Your task to perform on an android device: Open maps Image 0: 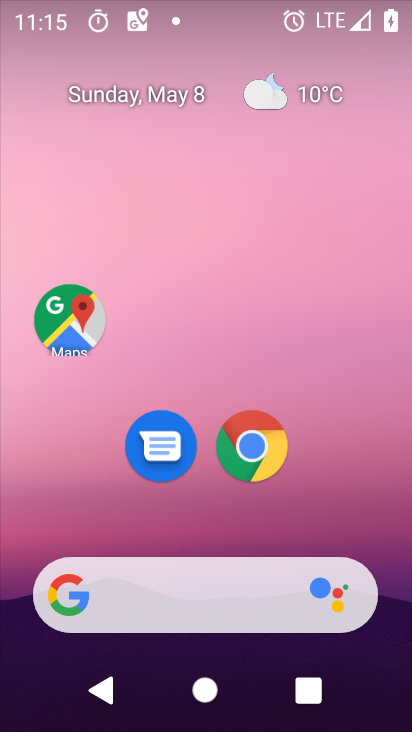
Step 0: click (68, 323)
Your task to perform on an android device: Open maps Image 1: 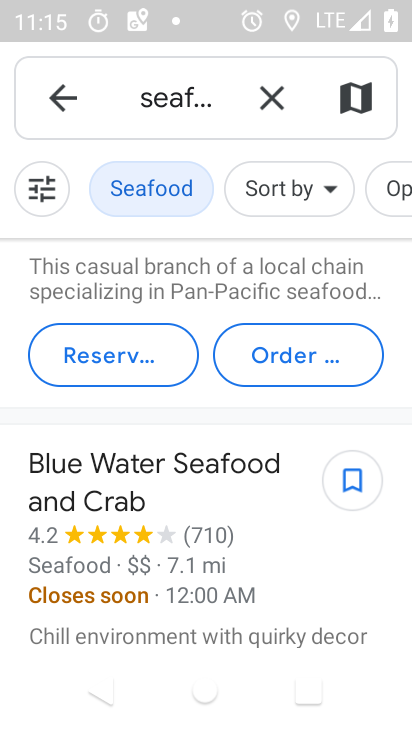
Step 1: click (266, 100)
Your task to perform on an android device: Open maps Image 2: 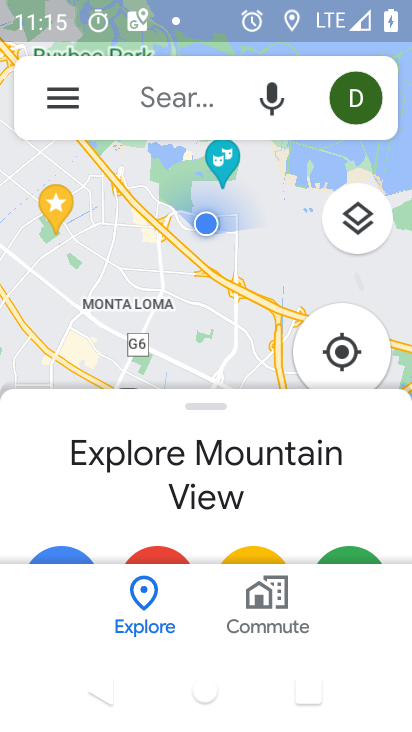
Step 2: task complete